Your task to perform on an android device: Open Chrome and go to settings Image 0: 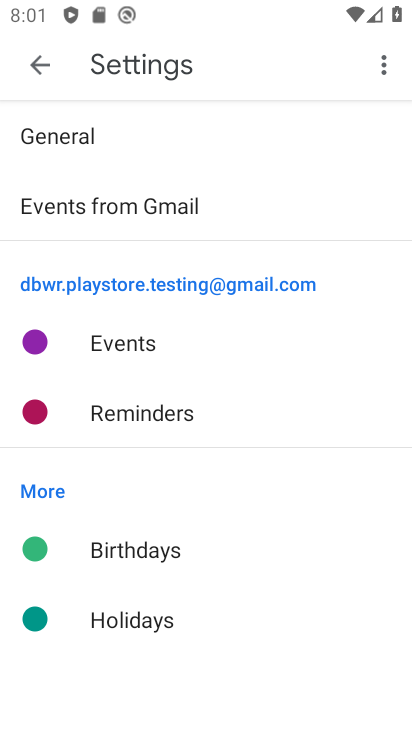
Step 0: press home button
Your task to perform on an android device: Open Chrome and go to settings Image 1: 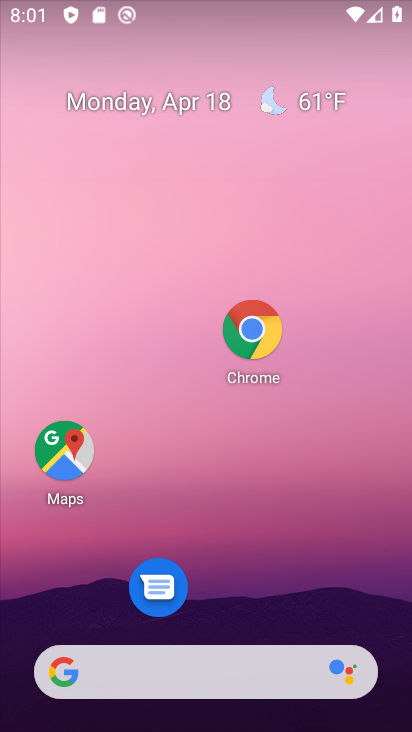
Step 1: drag from (274, 570) to (304, 167)
Your task to perform on an android device: Open Chrome and go to settings Image 2: 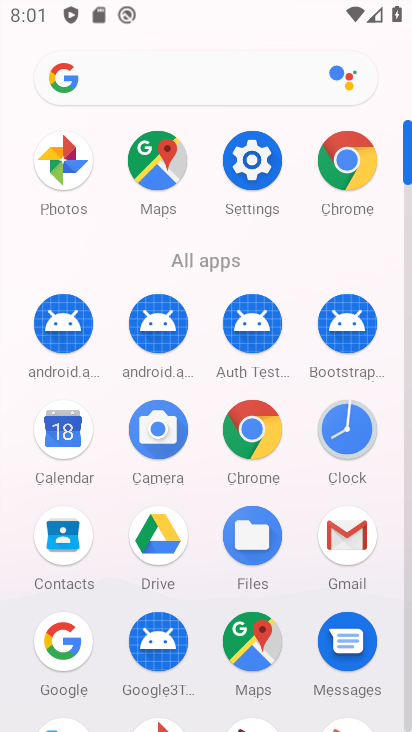
Step 2: click (346, 151)
Your task to perform on an android device: Open Chrome and go to settings Image 3: 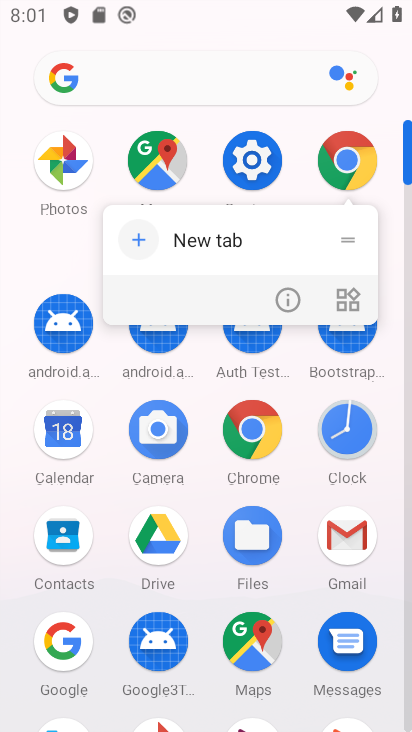
Step 3: click (346, 151)
Your task to perform on an android device: Open Chrome and go to settings Image 4: 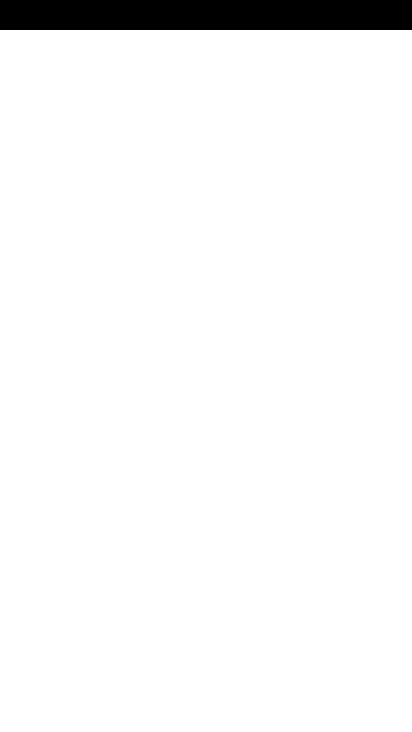
Step 4: click (341, 145)
Your task to perform on an android device: Open Chrome and go to settings Image 5: 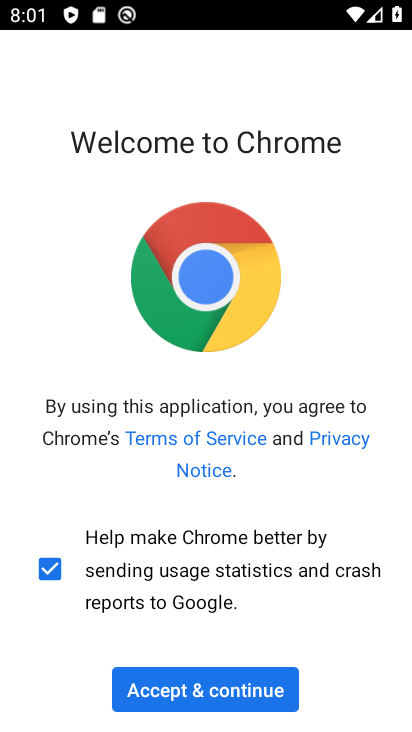
Step 5: click (214, 686)
Your task to perform on an android device: Open Chrome and go to settings Image 6: 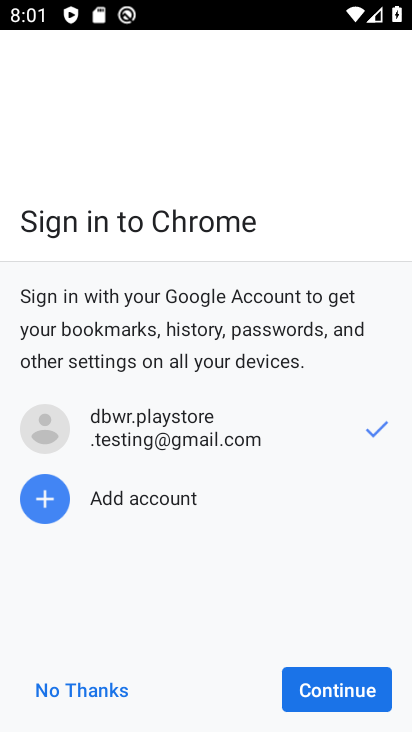
Step 6: click (336, 677)
Your task to perform on an android device: Open Chrome and go to settings Image 7: 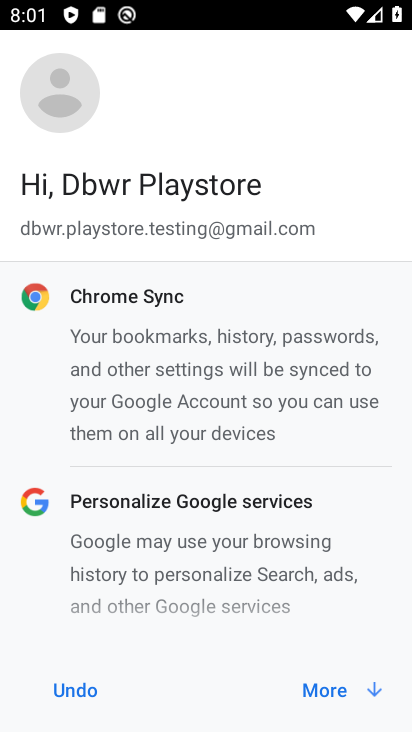
Step 7: click (340, 686)
Your task to perform on an android device: Open Chrome and go to settings Image 8: 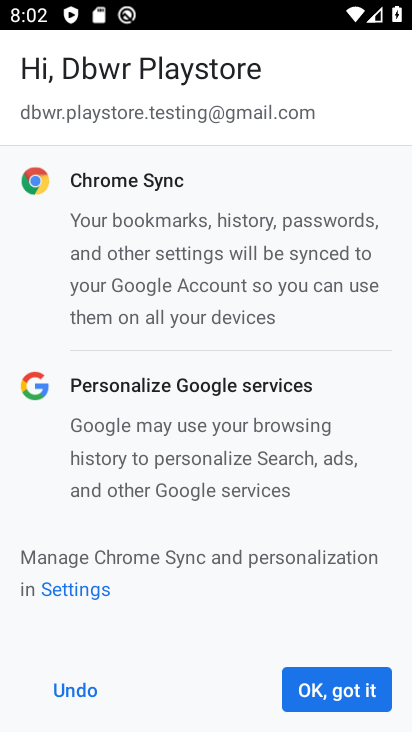
Step 8: click (340, 686)
Your task to perform on an android device: Open Chrome and go to settings Image 9: 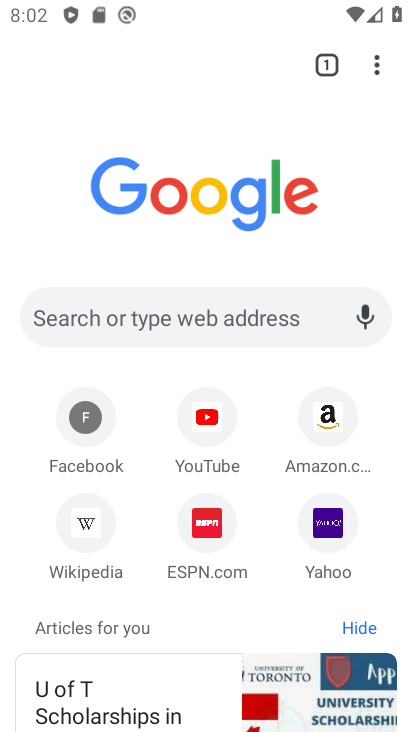
Step 9: click (377, 59)
Your task to perform on an android device: Open Chrome and go to settings Image 10: 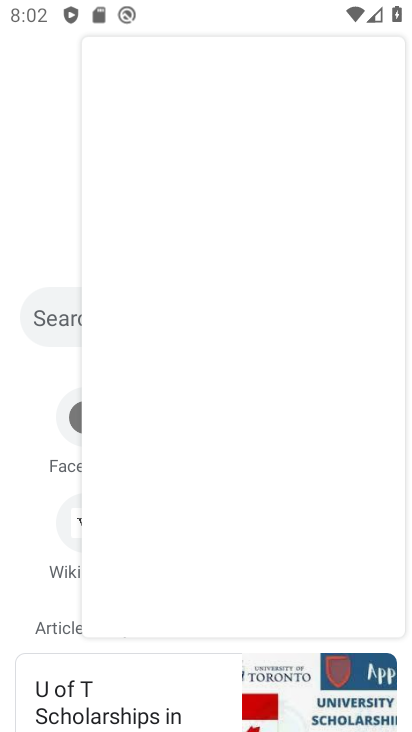
Step 10: click (377, 59)
Your task to perform on an android device: Open Chrome and go to settings Image 11: 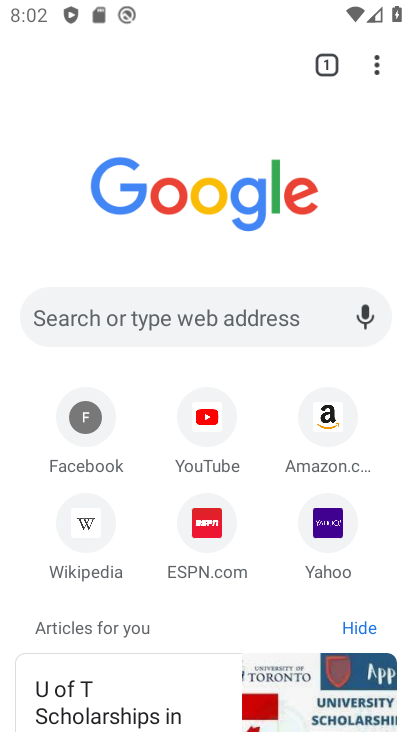
Step 11: click (381, 72)
Your task to perform on an android device: Open Chrome and go to settings Image 12: 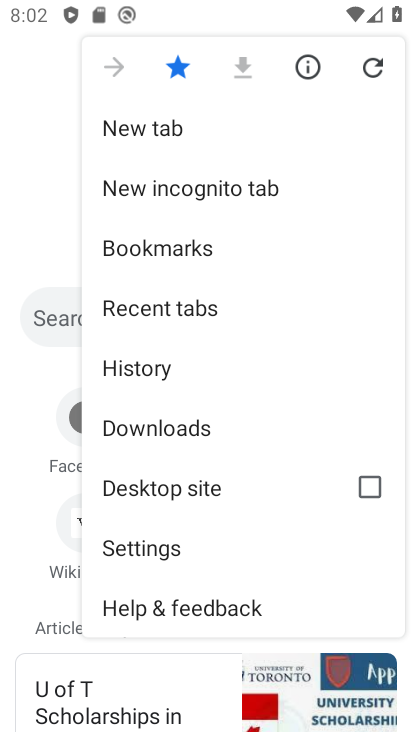
Step 12: click (153, 555)
Your task to perform on an android device: Open Chrome and go to settings Image 13: 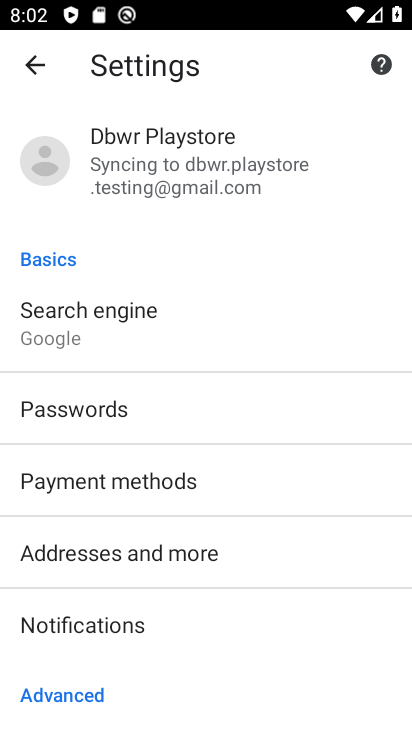
Step 13: task complete